Your task to perform on an android device: set an alarm Image 0: 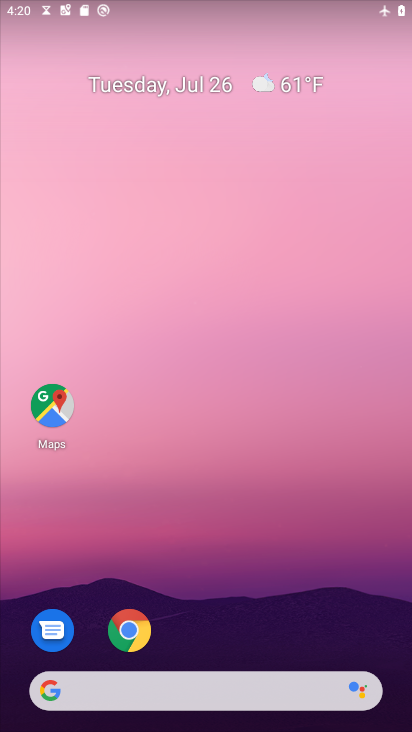
Step 0: click (262, 125)
Your task to perform on an android device: set an alarm Image 1: 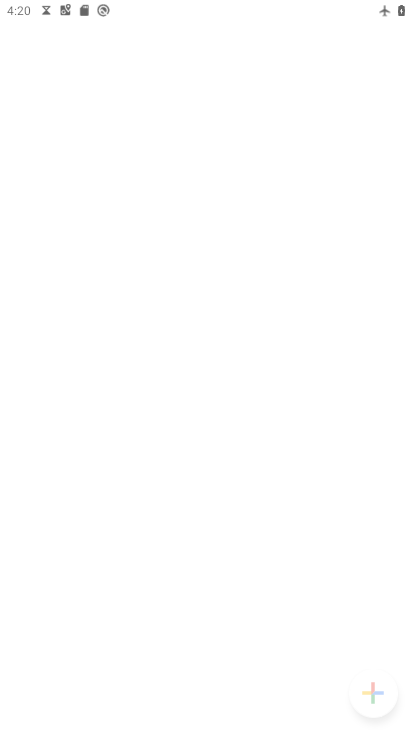
Step 1: drag from (239, 543) to (239, 180)
Your task to perform on an android device: set an alarm Image 2: 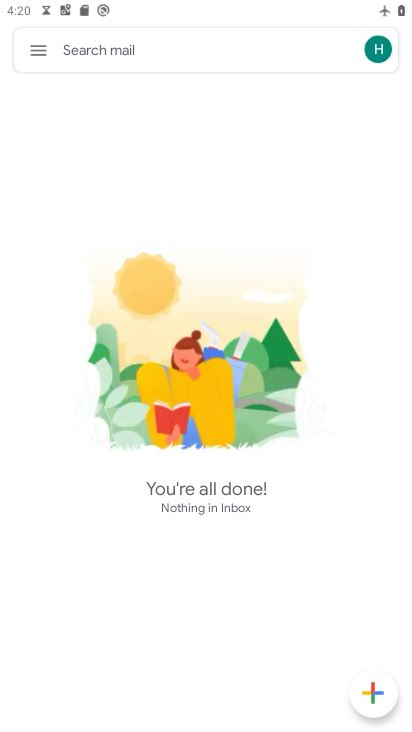
Step 2: press back button
Your task to perform on an android device: set an alarm Image 3: 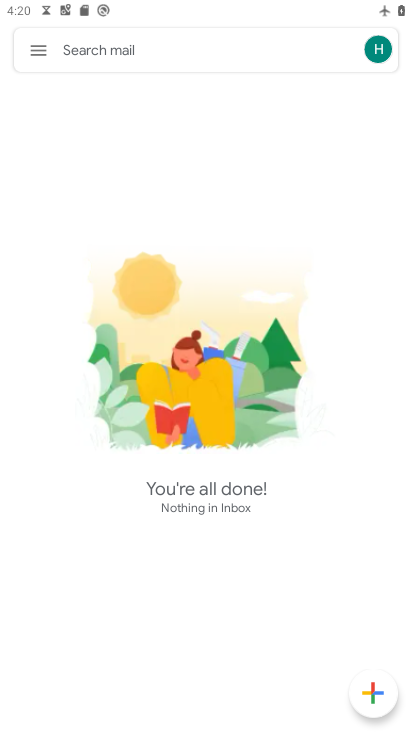
Step 3: press back button
Your task to perform on an android device: set an alarm Image 4: 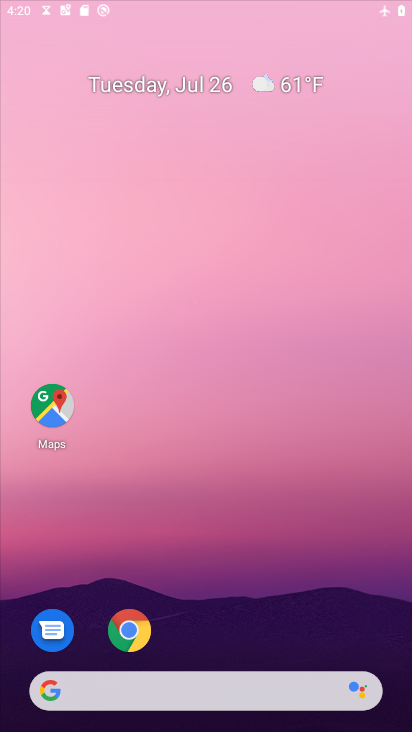
Step 4: press back button
Your task to perform on an android device: set an alarm Image 5: 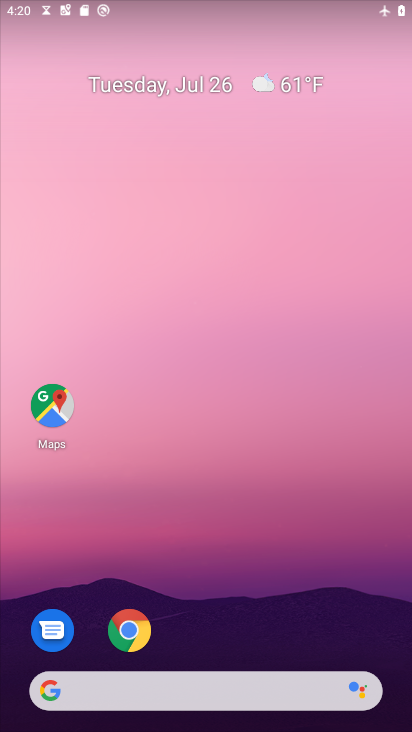
Step 5: drag from (265, 606) to (249, 7)
Your task to perform on an android device: set an alarm Image 6: 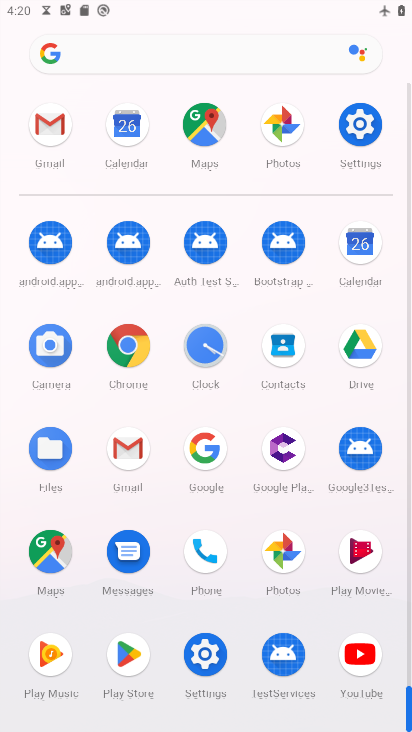
Step 6: click (198, 349)
Your task to perform on an android device: set an alarm Image 7: 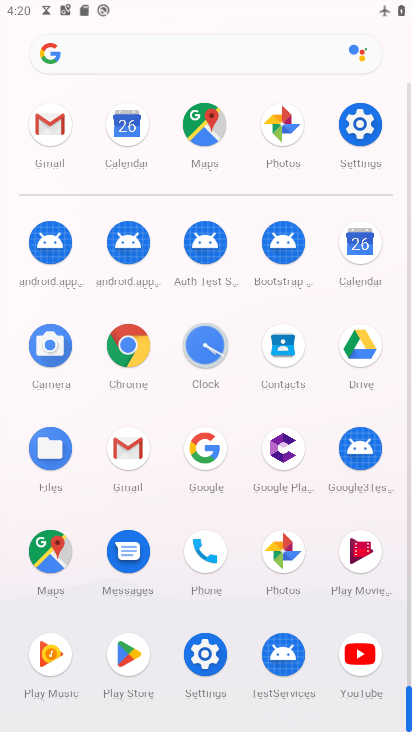
Step 7: click (198, 348)
Your task to perform on an android device: set an alarm Image 8: 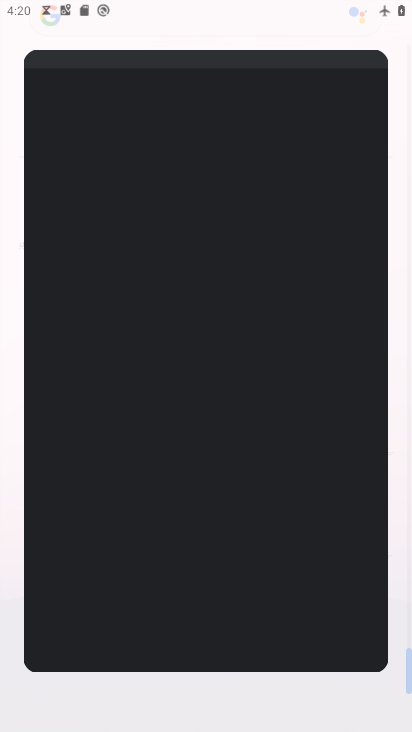
Step 8: click (210, 352)
Your task to perform on an android device: set an alarm Image 9: 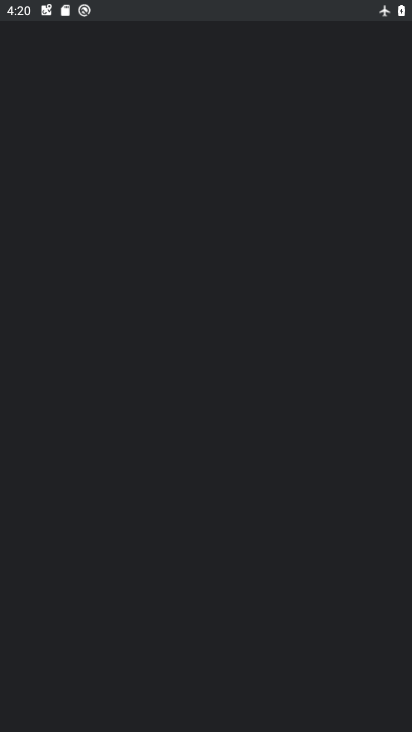
Step 9: click (211, 353)
Your task to perform on an android device: set an alarm Image 10: 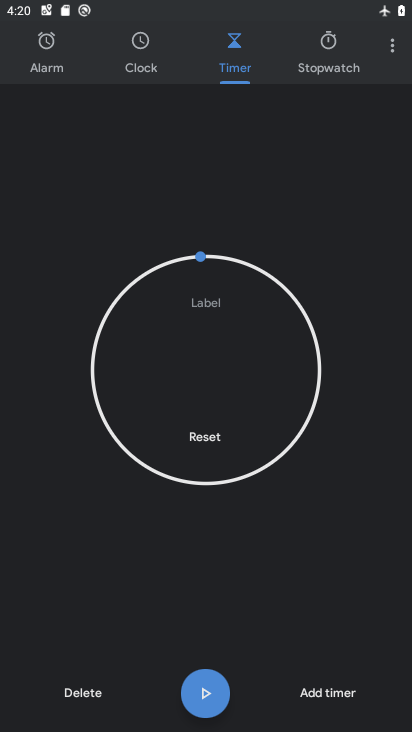
Step 10: click (211, 353)
Your task to perform on an android device: set an alarm Image 11: 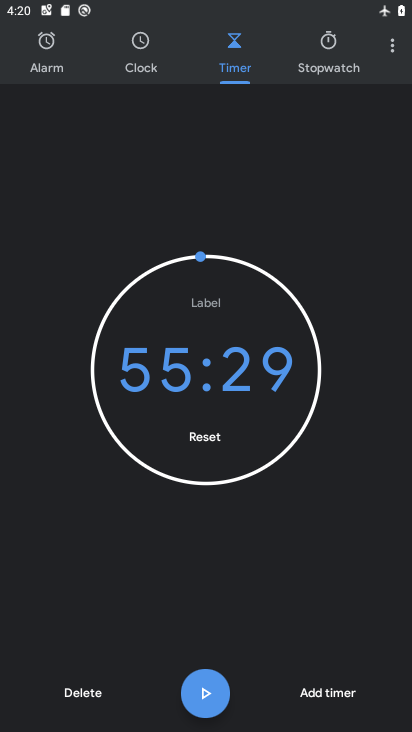
Step 11: click (44, 59)
Your task to perform on an android device: set an alarm Image 12: 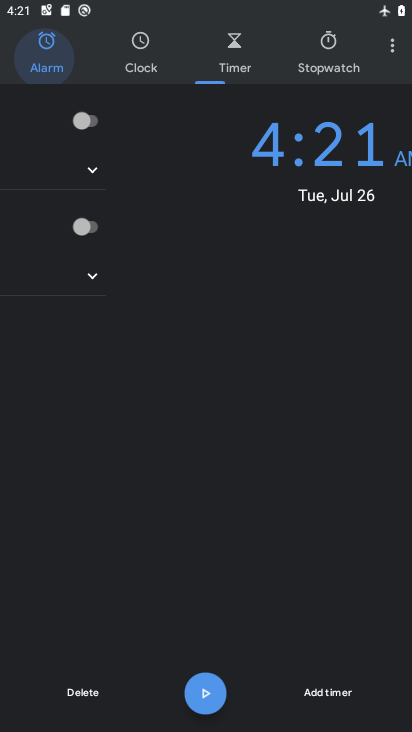
Step 12: click (46, 55)
Your task to perform on an android device: set an alarm Image 13: 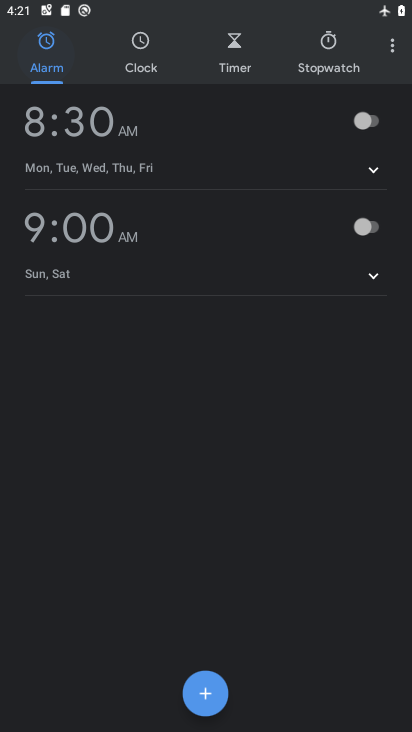
Step 13: click (47, 58)
Your task to perform on an android device: set an alarm Image 14: 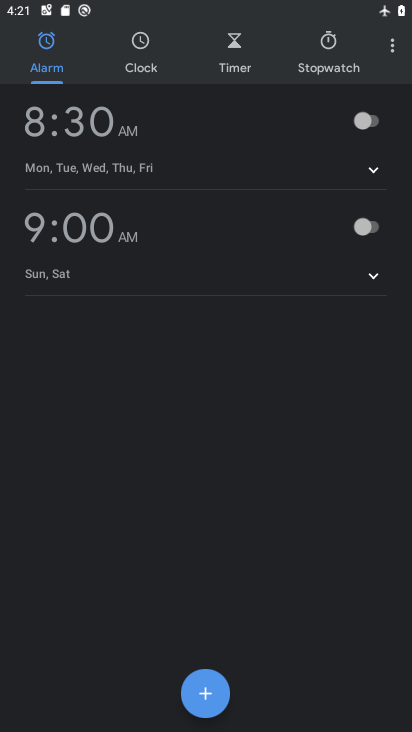
Step 14: click (359, 119)
Your task to perform on an android device: set an alarm Image 15: 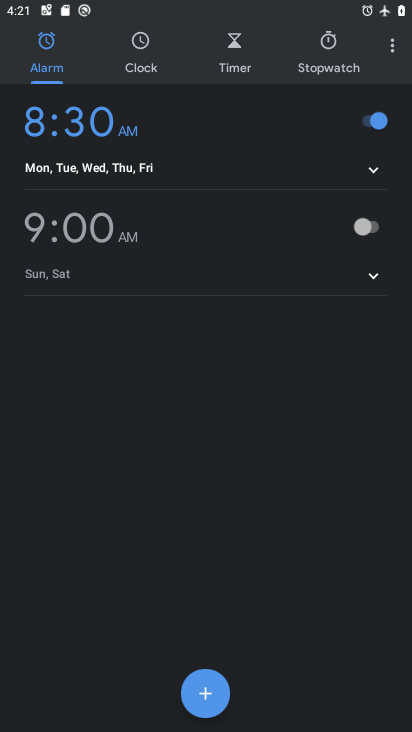
Step 15: task complete